Your task to perform on an android device: see sites visited before in the chrome app Image 0: 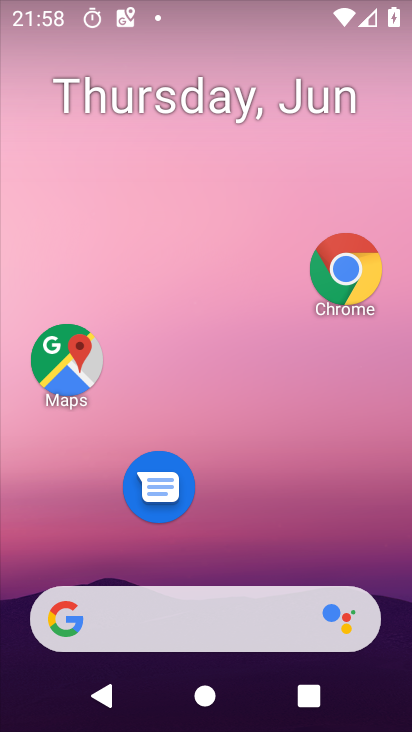
Step 0: click (272, 57)
Your task to perform on an android device: see sites visited before in the chrome app Image 1: 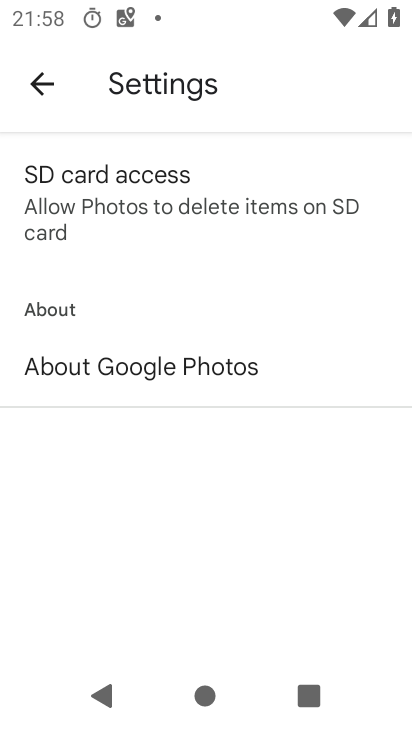
Step 1: drag from (235, 514) to (254, 67)
Your task to perform on an android device: see sites visited before in the chrome app Image 2: 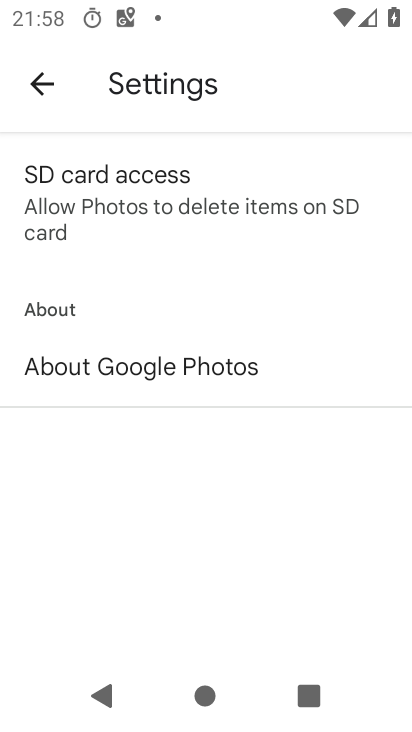
Step 2: click (282, 463)
Your task to perform on an android device: see sites visited before in the chrome app Image 3: 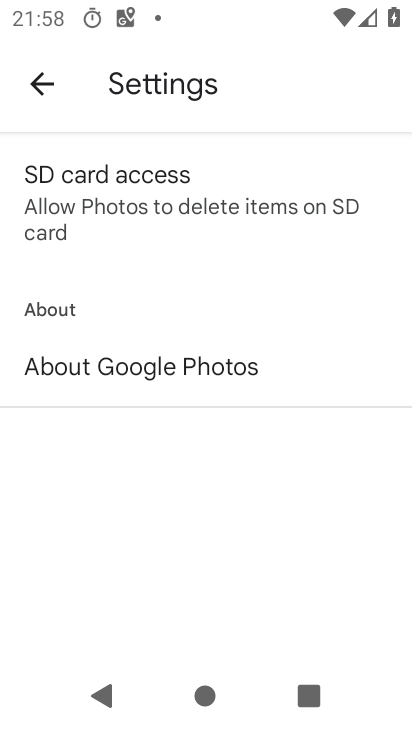
Step 3: press home button
Your task to perform on an android device: see sites visited before in the chrome app Image 4: 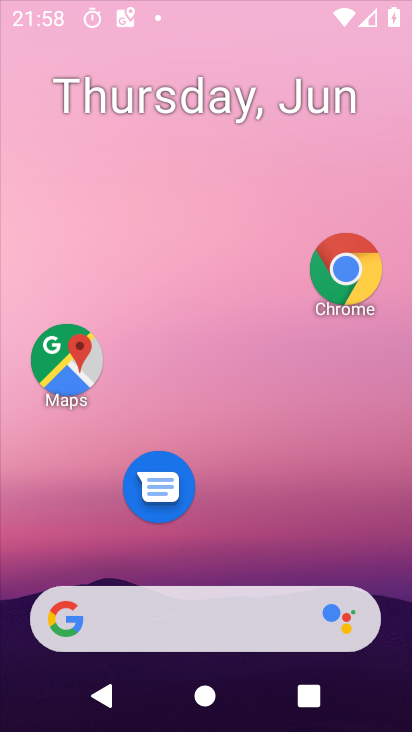
Step 4: drag from (303, 563) to (314, 155)
Your task to perform on an android device: see sites visited before in the chrome app Image 5: 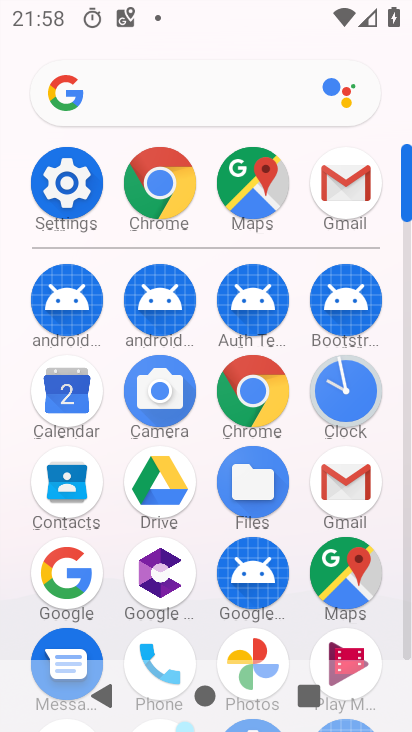
Step 5: click (240, 403)
Your task to perform on an android device: see sites visited before in the chrome app Image 6: 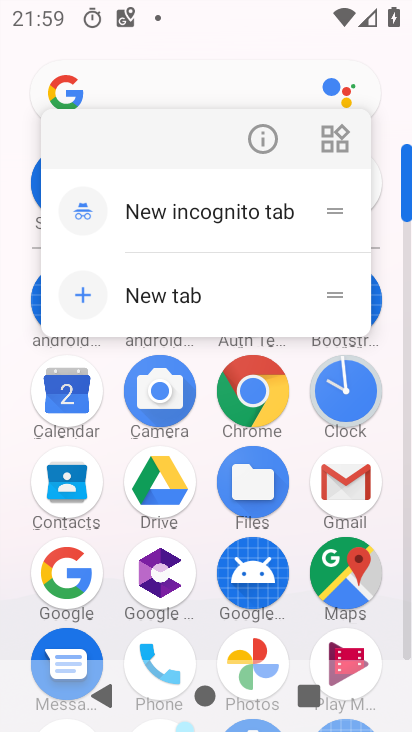
Step 6: click (269, 133)
Your task to perform on an android device: see sites visited before in the chrome app Image 7: 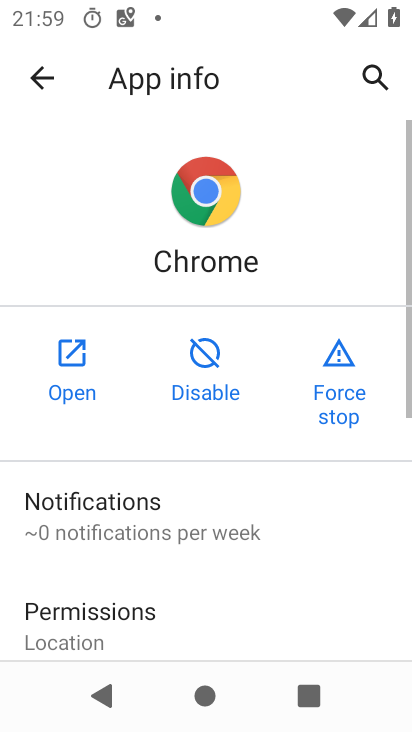
Step 7: click (43, 374)
Your task to perform on an android device: see sites visited before in the chrome app Image 8: 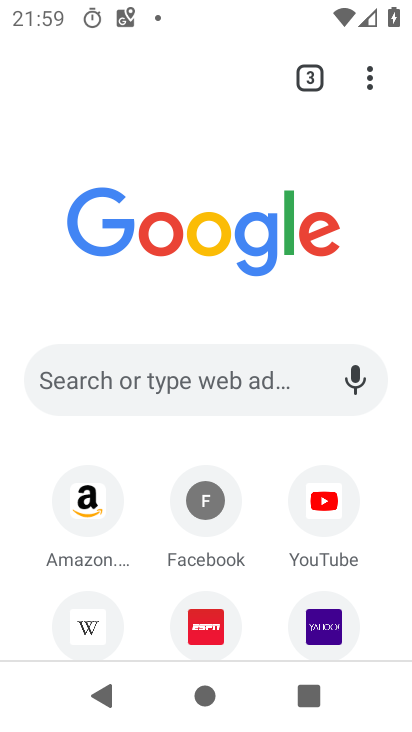
Step 8: drag from (249, 477) to (241, 242)
Your task to perform on an android device: see sites visited before in the chrome app Image 9: 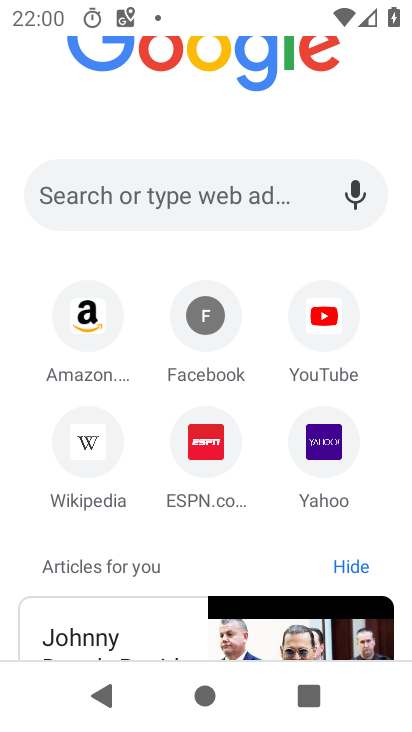
Step 9: drag from (264, 13) to (376, 532)
Your task to perform on an android device: see sites visited before in the chrome app Image 10: 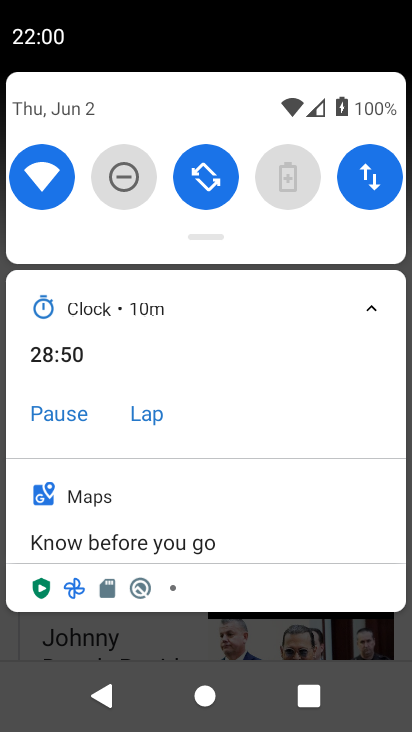
Step 10: press home button
Your task to perform on an android device: see sites visited before in the chrome app Image 11: 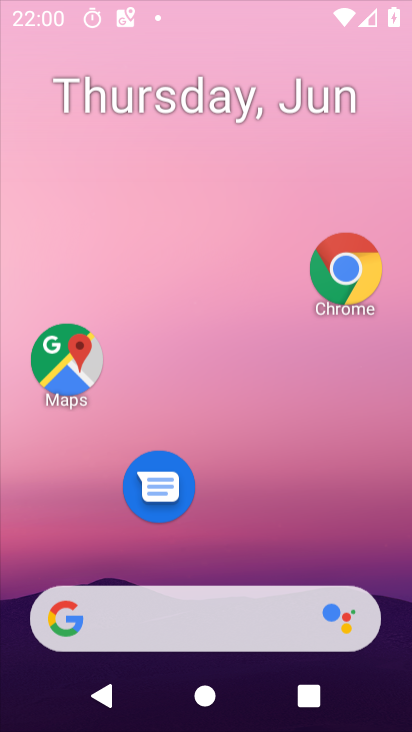
Step 11: drag from (193, 614) to (283, 91)
Your task to perform on an android device: see sites visited before in the chrome app Image 12: 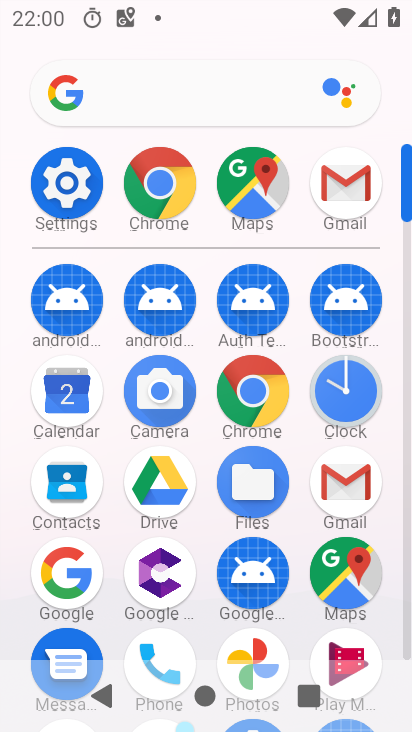
Step 12: click (243, 386)
Your task to perform on an android device: see sites visited before in the chrome app Image 13: 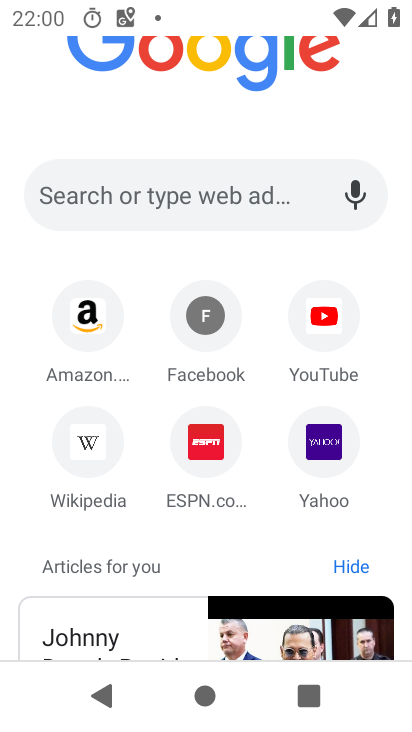
Step 13: task complete